Your task to perform on an android device: open device folders in google photos Image 0: 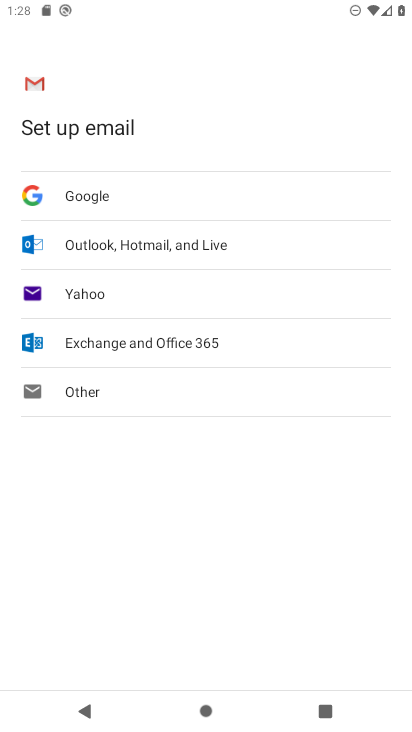
Step 0: press home button
Your task to perform on an android device: open device folders in google photos Image 1: 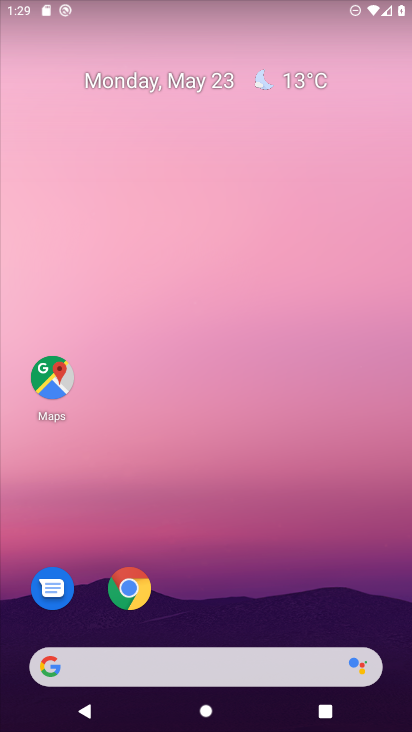
Step 1: drag from (227, 632) to (280, 234)
Your task to perform on an android device: open device folders in google photos Image 2: 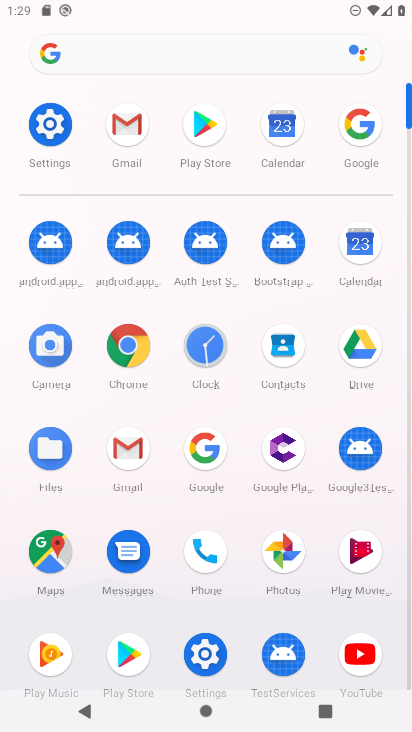
Step 2: click (284, 566)
Your task to perform on an android device: open device folders in google photos Image 3: 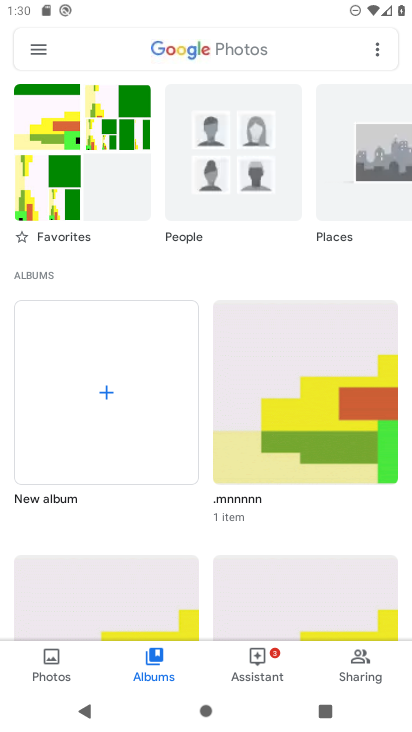
Step 3: click (38, 51)
Your task to perform on an android device: open device folders in google photos Image 4: 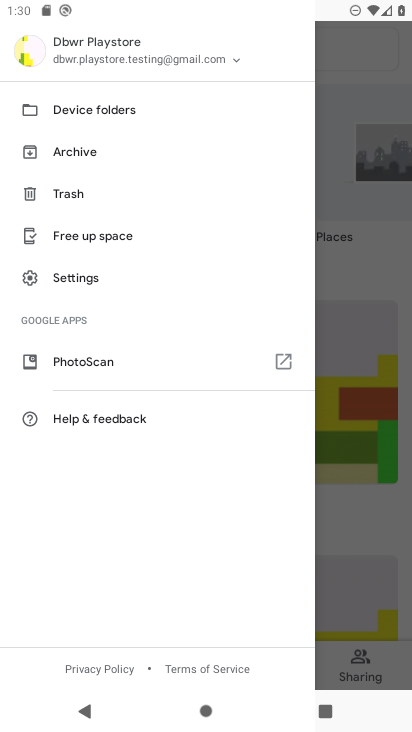
Step 4: click (77, 106)
Your task to perform on an android device: open device folders in google photos Image 5: 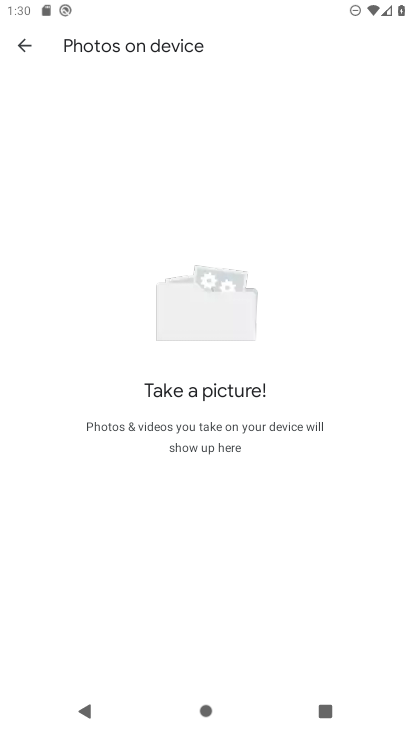
Step 5: click (19, 52)
Your task to perform on an android device: open device folders in google photos Image 6: 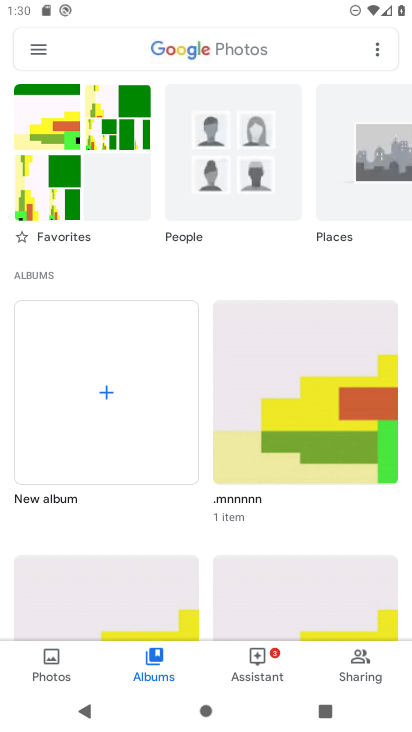
Step 6: click (35, 47)
Your task to perform on an android device: open device folders in google photos Image 7: 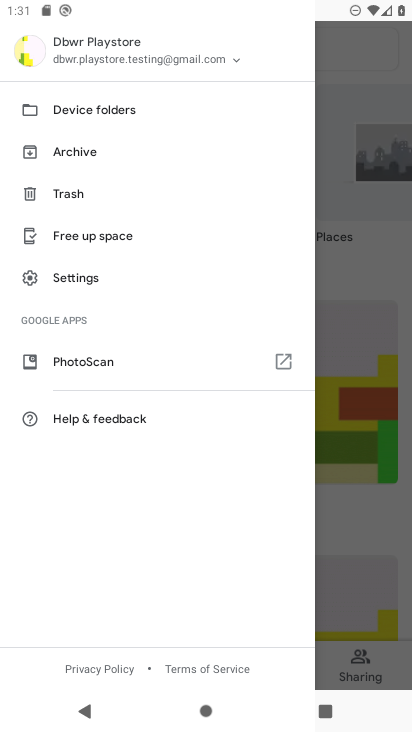
Step 7: click (107, 112)
Your task to perform on an android device: open device folders in google photos Image 8: 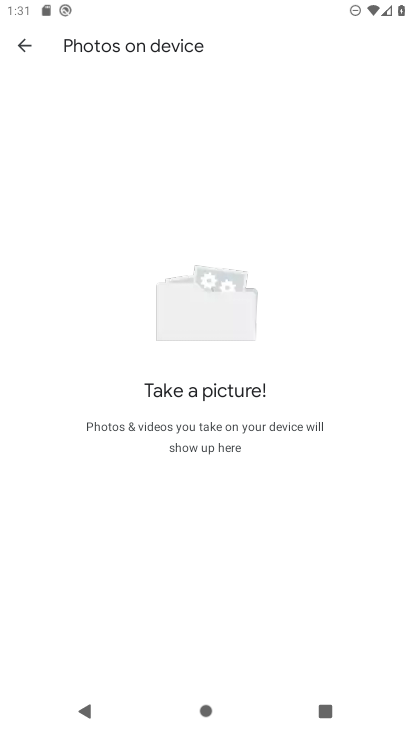
Step 8: task complete